Your task to perform on an android device: open app "Mercado Libre" Image 0: 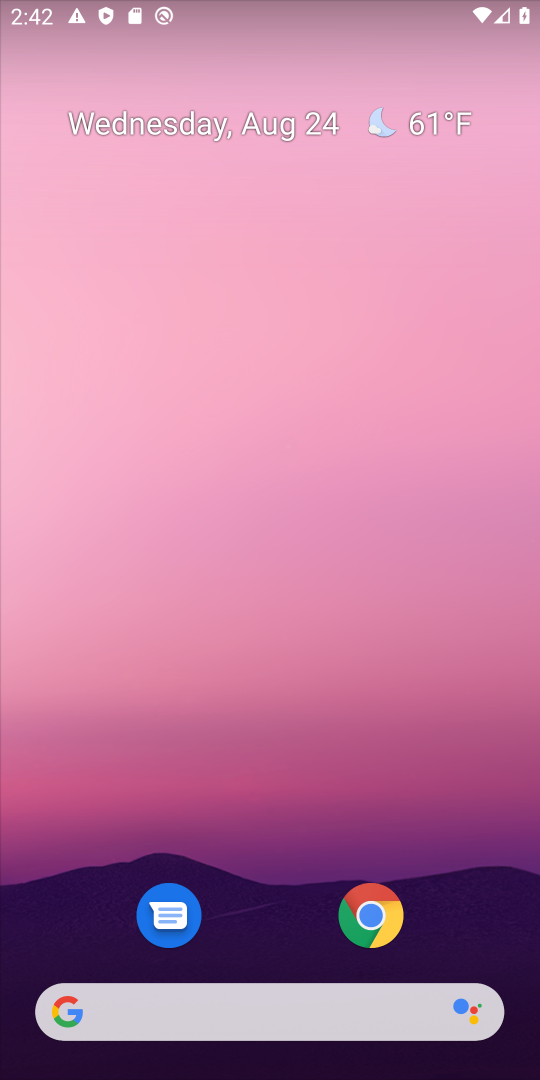
Step 0: drag from (276, 829) to (276, 158)
Your task to perform on an android device: open app "Mercado Libre" Image 1: 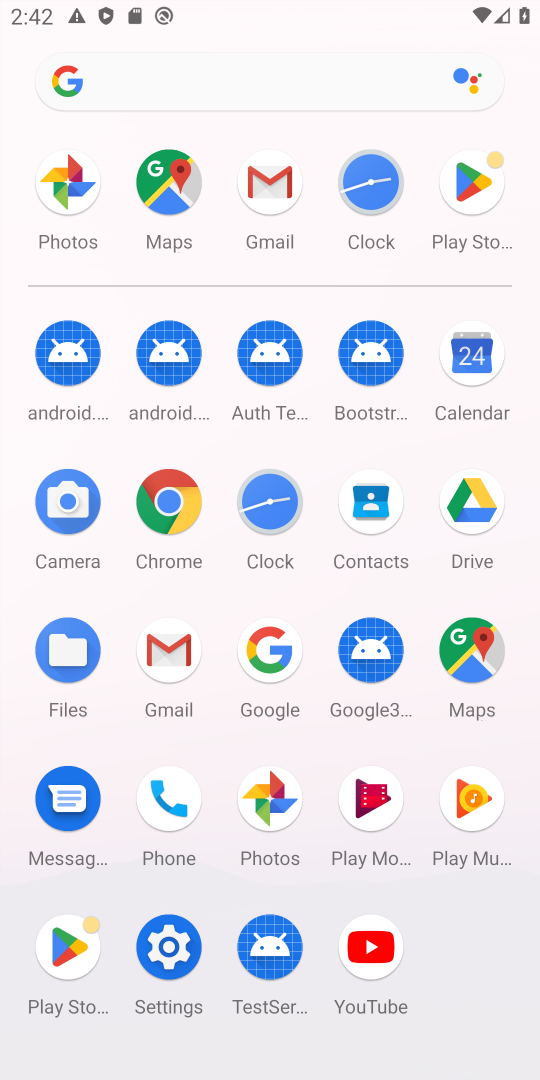
Step 1: click (460, 197)
Your task to perform on an android device: open app "Mercado Libre" Image 2: 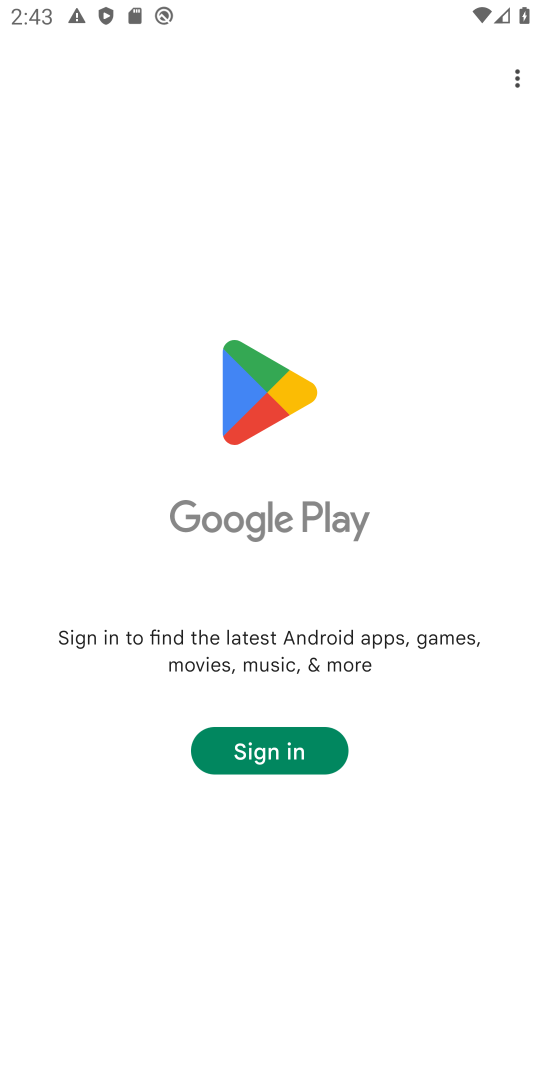
Step 2: task complete